Your task to perform on an android device: Go to network settings Image 0: 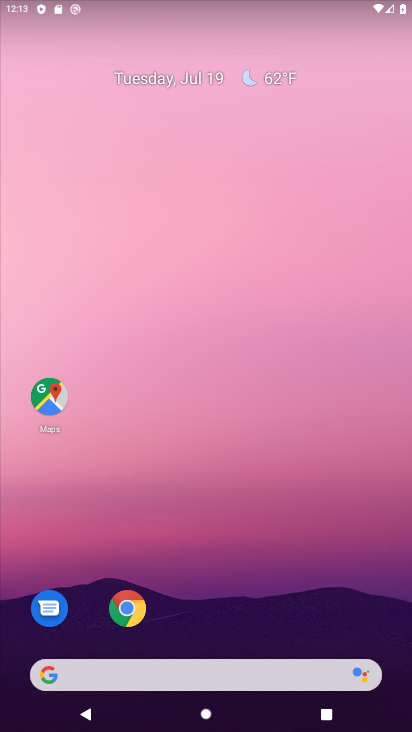
Step 0: press home button
Your task to perform on an android device: Go to network settings Image 1: 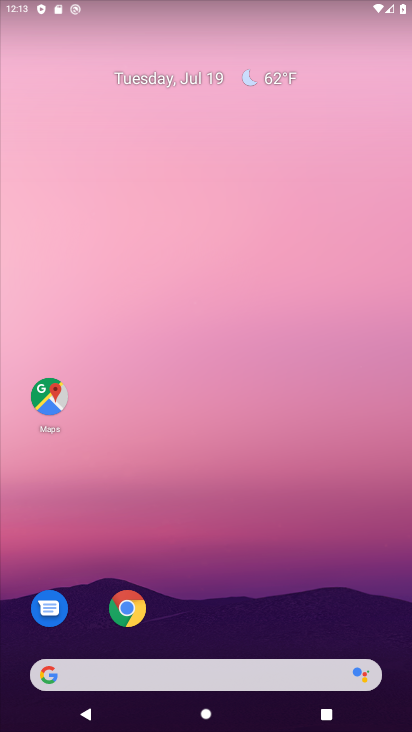
Step 1: drag from (204, 642) to (228, 34)
Your task to perform on an android device: Go to network settings Image 2: 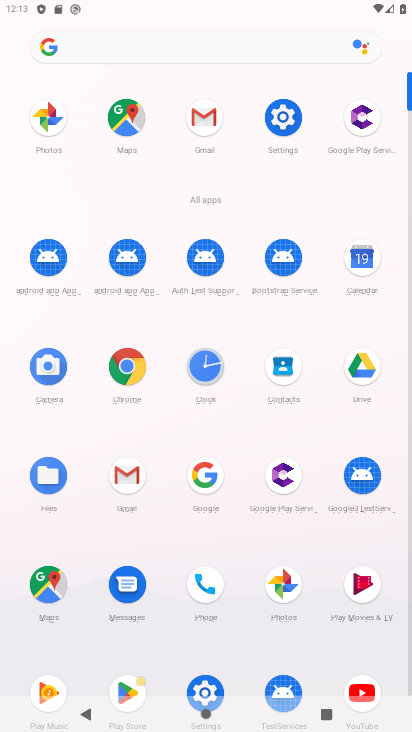
Step 2: click (281, 112)
Your task to perform on an android device: Go to network settings Image 3: 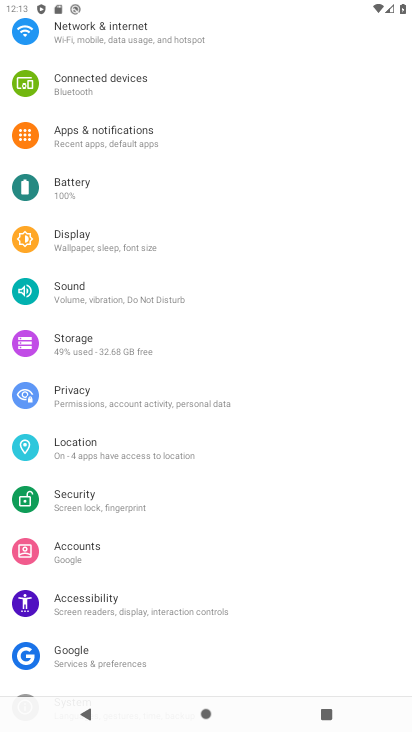
Step 3: click (161, 28)
Your task to perform on an android device: Go to network settings Image 4: 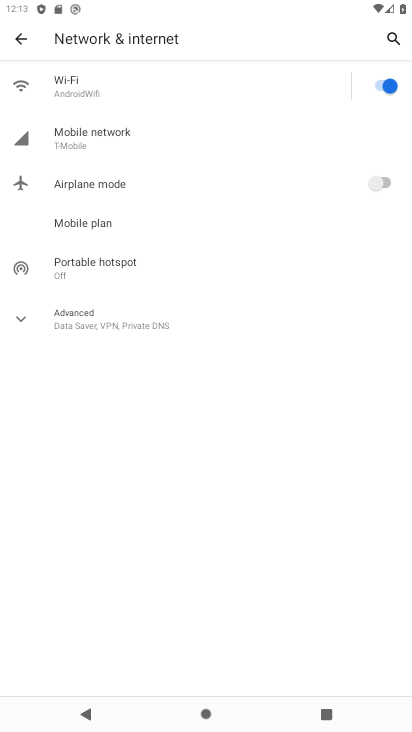
Step 4: click (22, 316)
Your task to perform on an android device: Go to network settings Image 5: 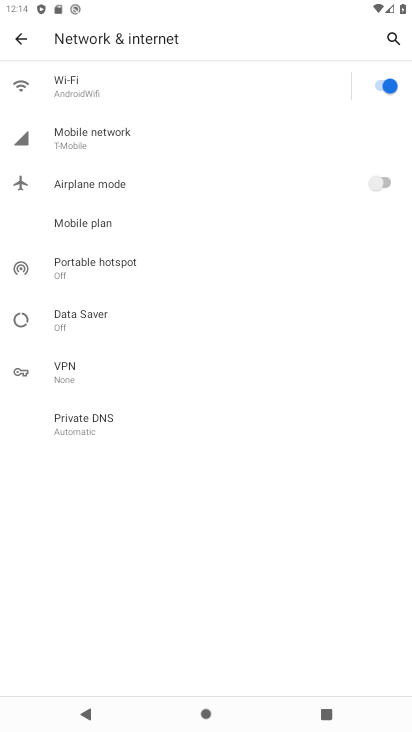
Step 5: task complete